Your task to perform on an android device: uninstall "Gboard" Image 0: 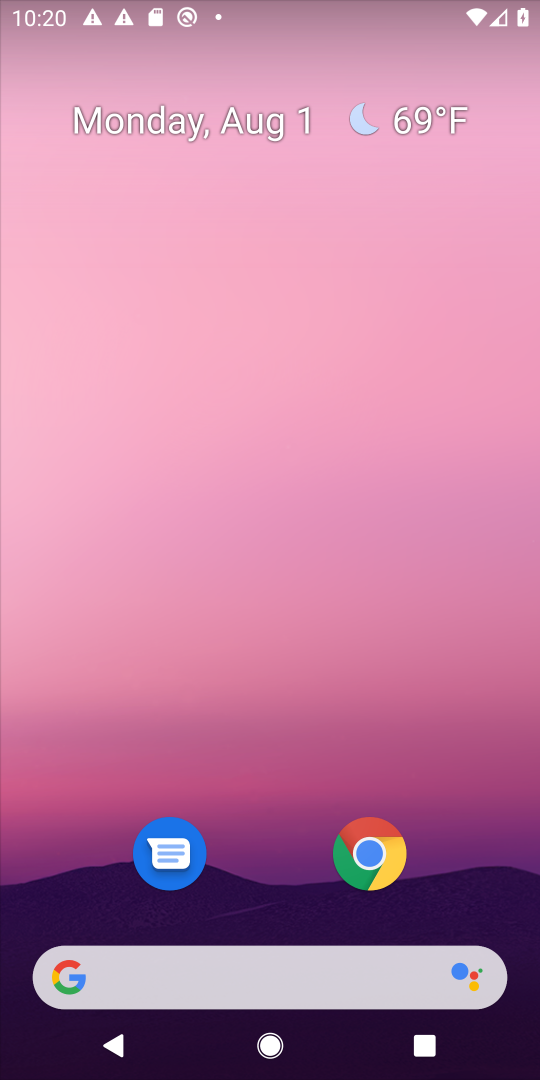
Step 0: drag from (252, 873) to (266, 192)
Your task to perform on an android device: uninstall "Gboard" Image 1: 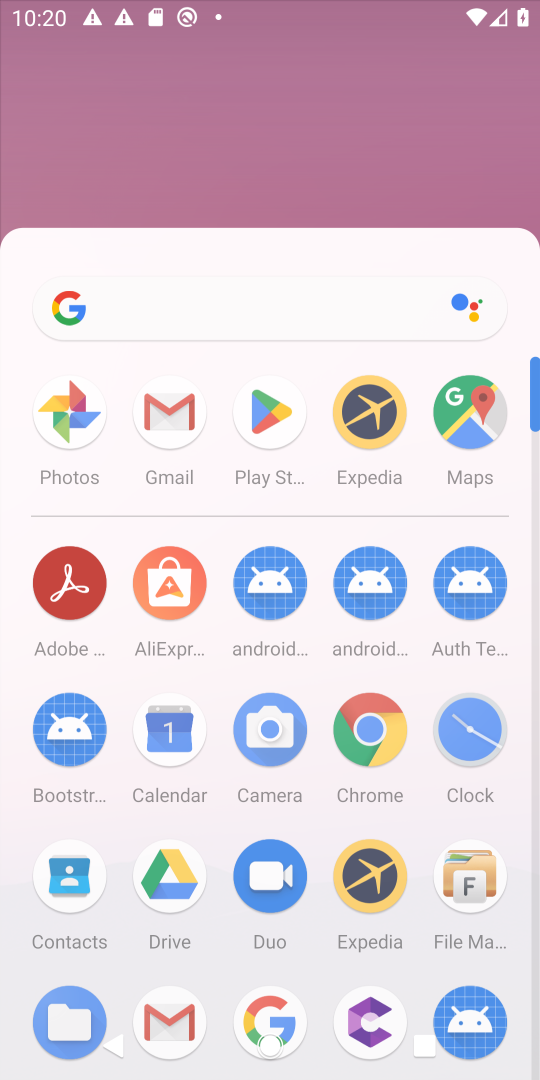
Step 1: drag from (312, 703) to (334, 48)
Your task to perform on an android device: uninstall "Gboard" Image 2: 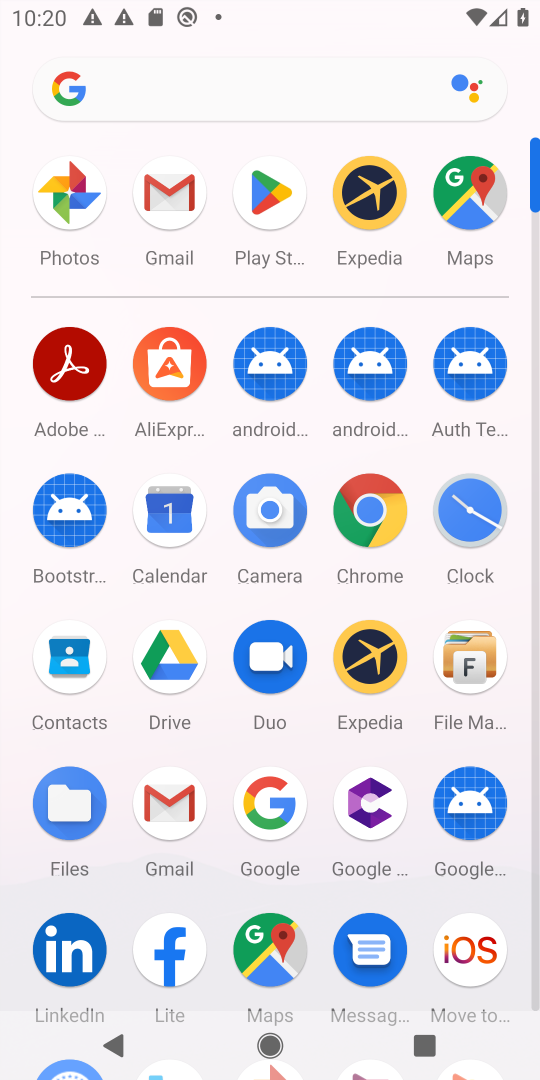
Step 2: click (234, 137)
Your task to perform on an android device: uninstall "Gboard" Image 3: 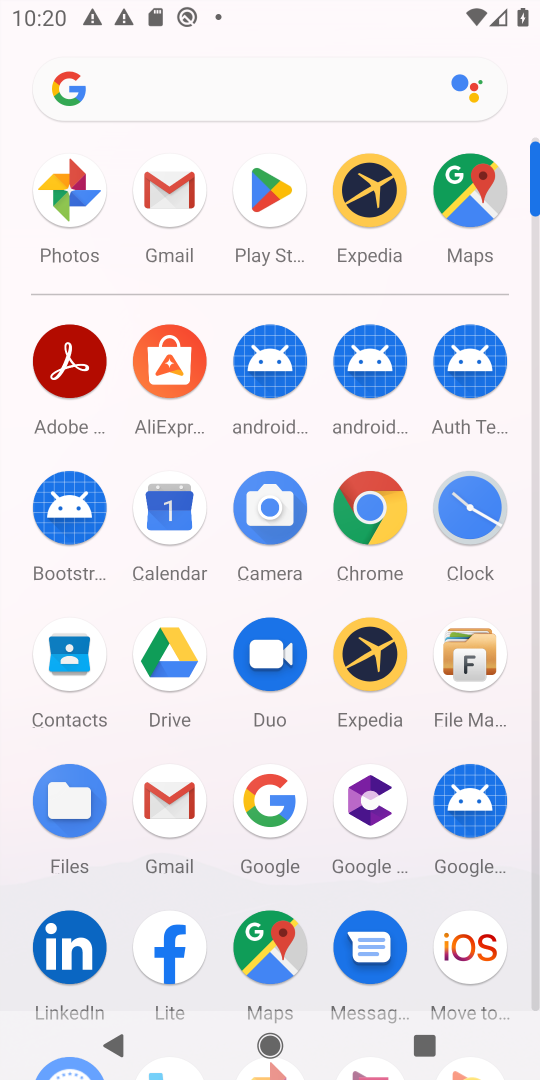
Step 3: drag from (209, 912) to (198, 344)
Your task to perform on an android device: uninstall "Gboard" Image 4: 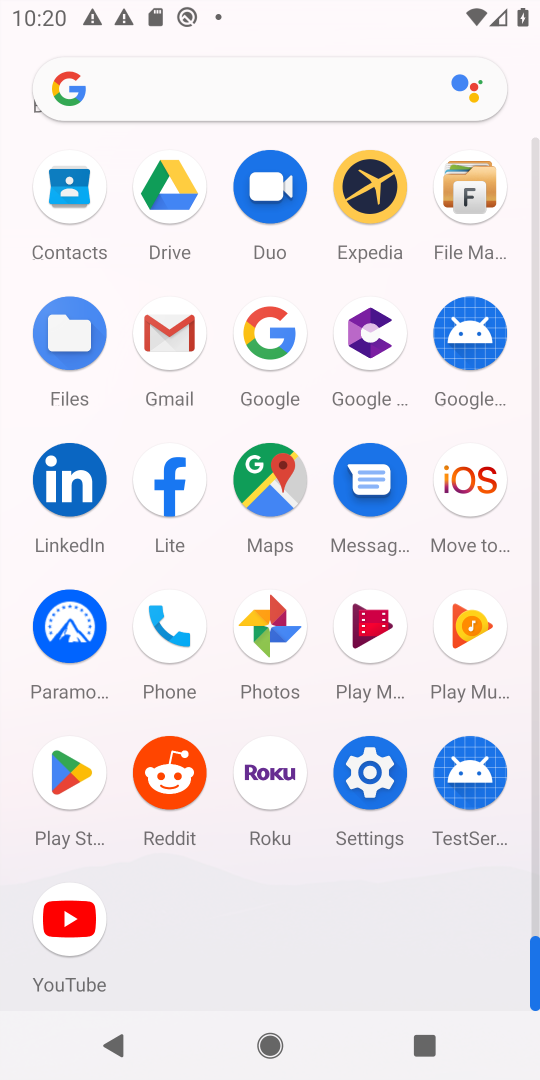
Step 4: drag from (221, 247) to (459, 1033)
Your task to perform on an android device: uninstall "Gboard" Image 5: 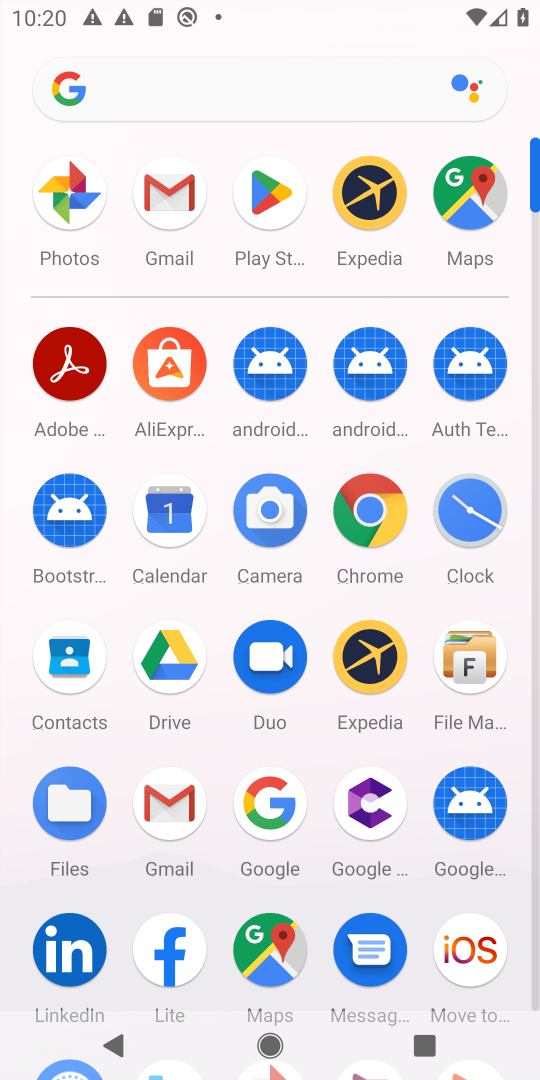
Step 5: click (247, 175)
Your task to perform on an android device: uninstall "Gboard" Image 6: 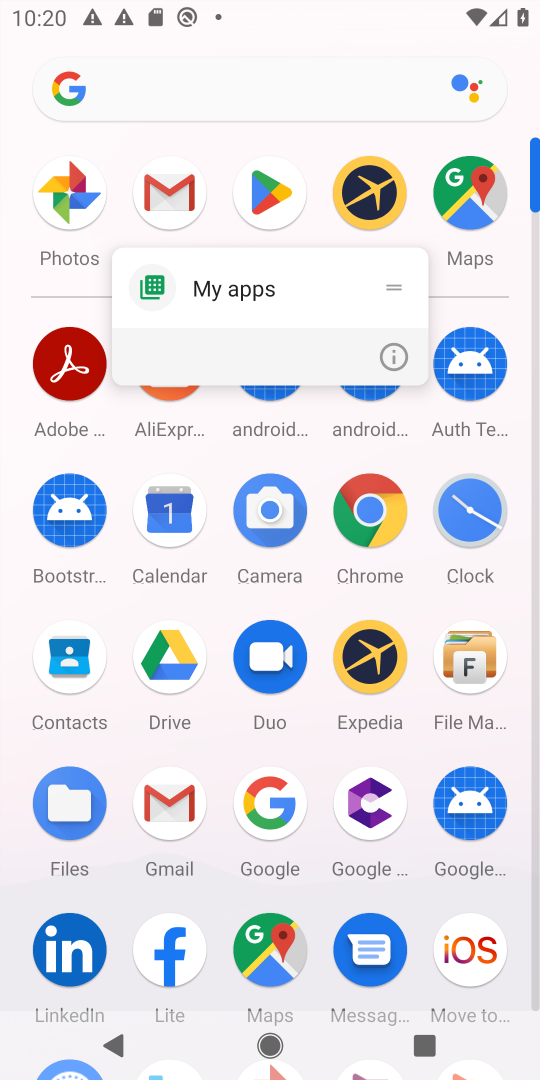
Step 6: click (401, 351)
Your task to perform on an android device: uninstall "Gboard" Image 7: 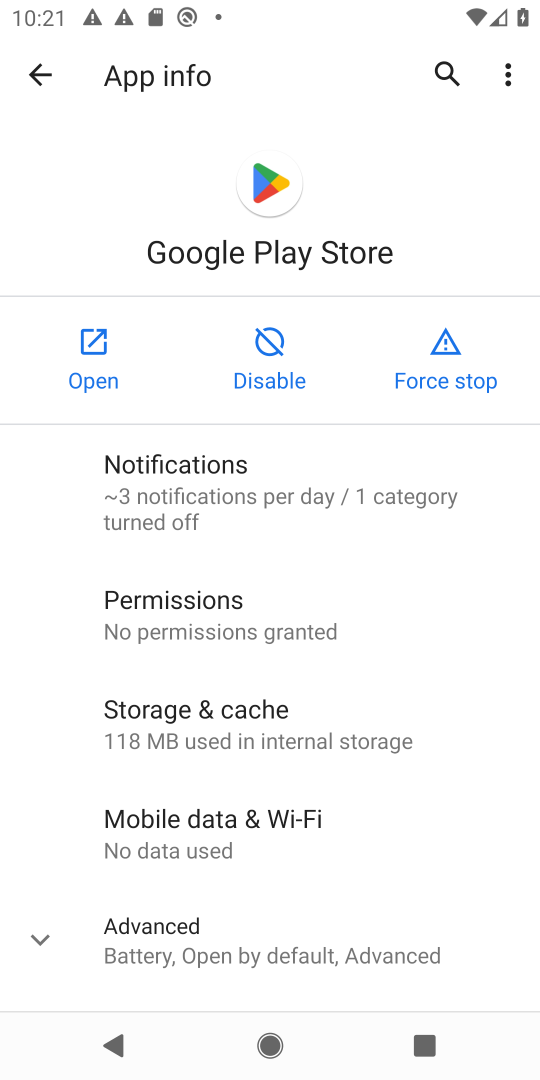
Step 7: click (89, 350)
Your task to perform on an android device: uninstall "Gboard" Image 8: 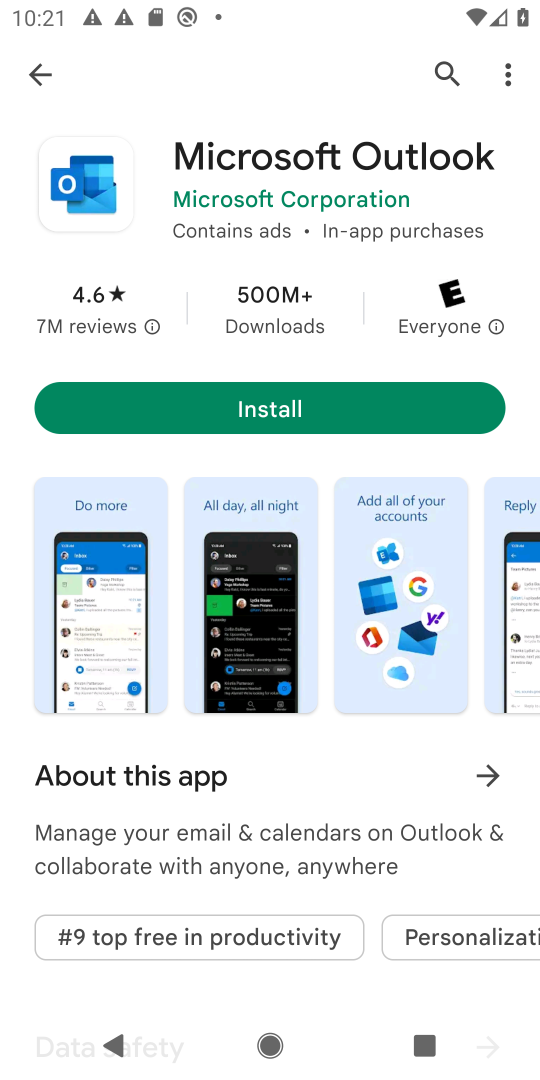
Step 8: click (443, 68)
Your task to perform on an android device: uninstall "Gboard" Image 9: 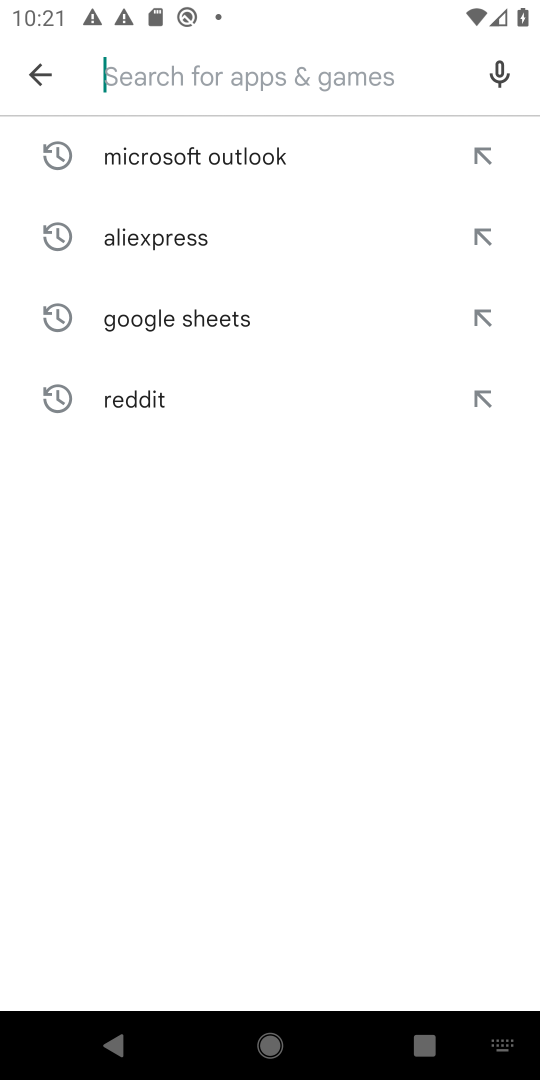
Step 9: type "Gboard"
Your task to perform on an android device: uninstall "Gboard" Image 10: 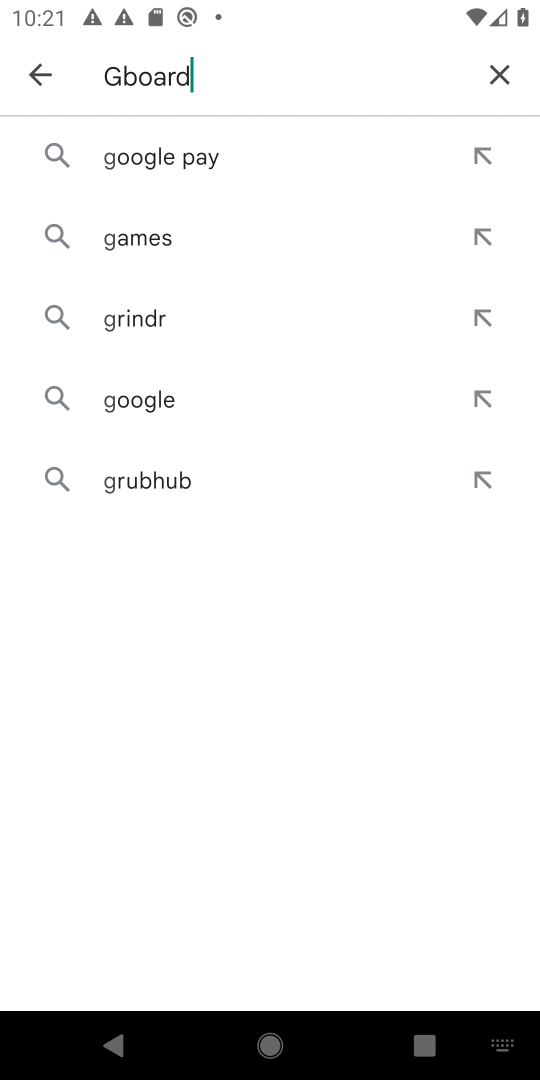
Step 10: type ""
Your task to perform on an android device: uninstall "Gboard" Image 11: 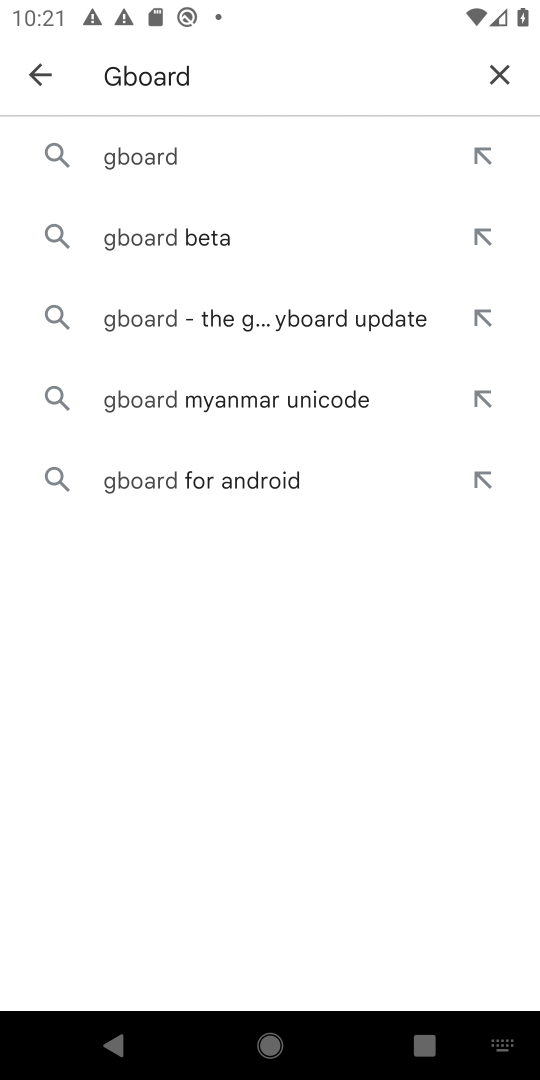
Step 11: click (223, 178)
Your task to perform on an android device: uninstall "Gboard" Image 12: 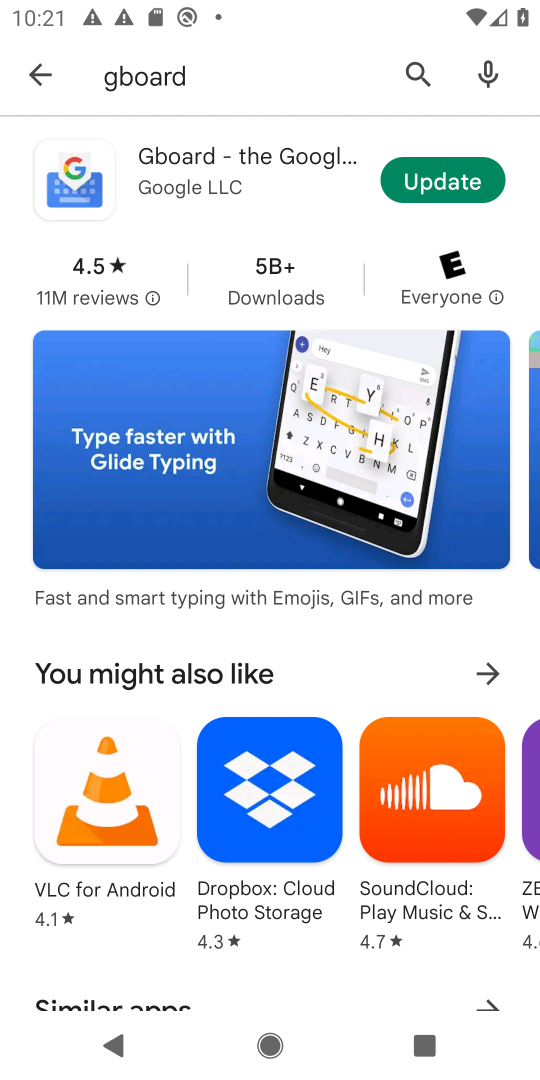
Step 12: click (174, 166)
Your task to perform on an android device: uninstall "Gboard" Image 13: 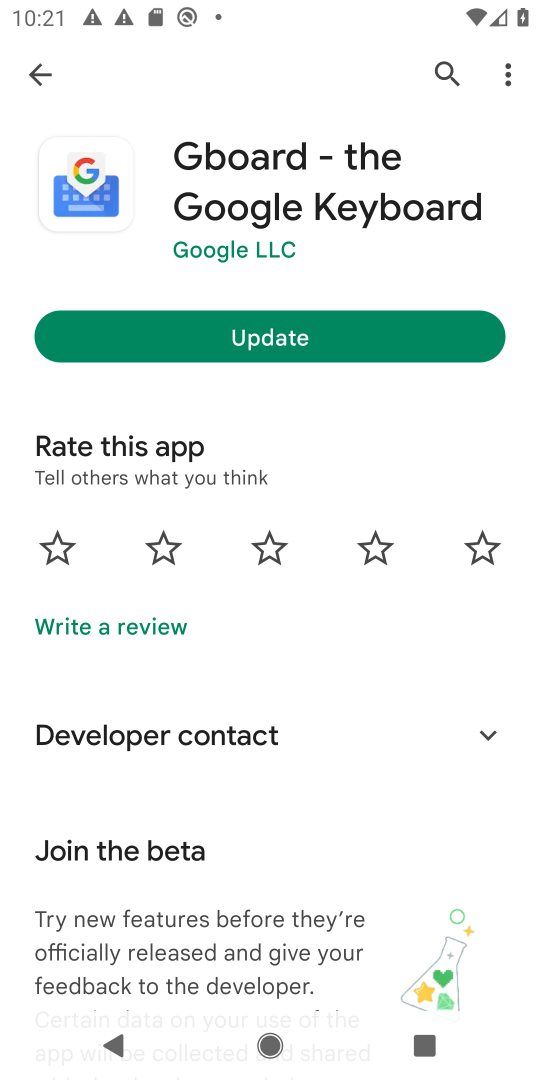
Step 13: click (225, 348)
Your task to perform on an android device: uninstall "Gboard" Image 14: 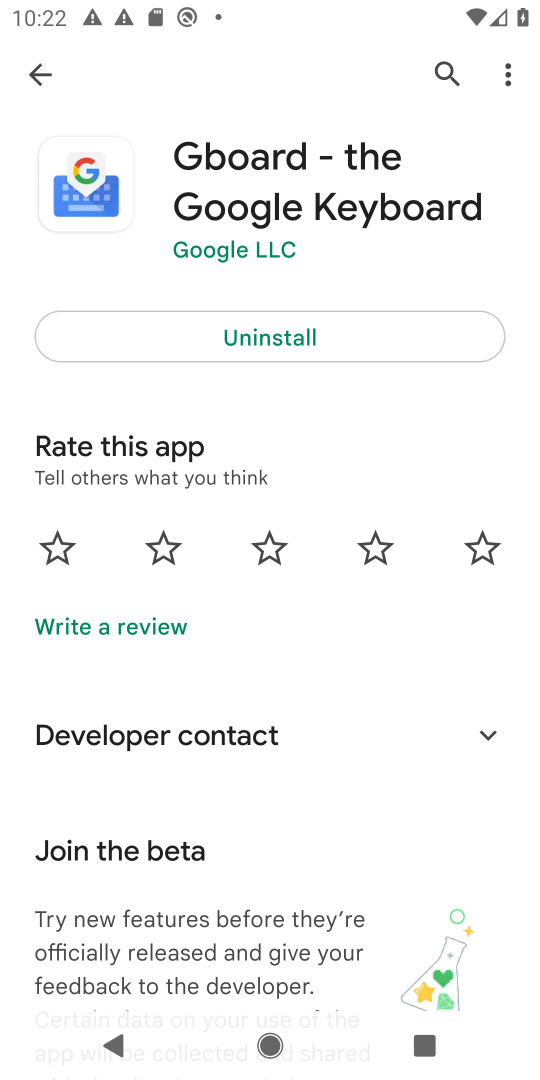
Step 14: click (220, 337)
Your task to perform on an android device: uninstall "Gboard" Image 15: 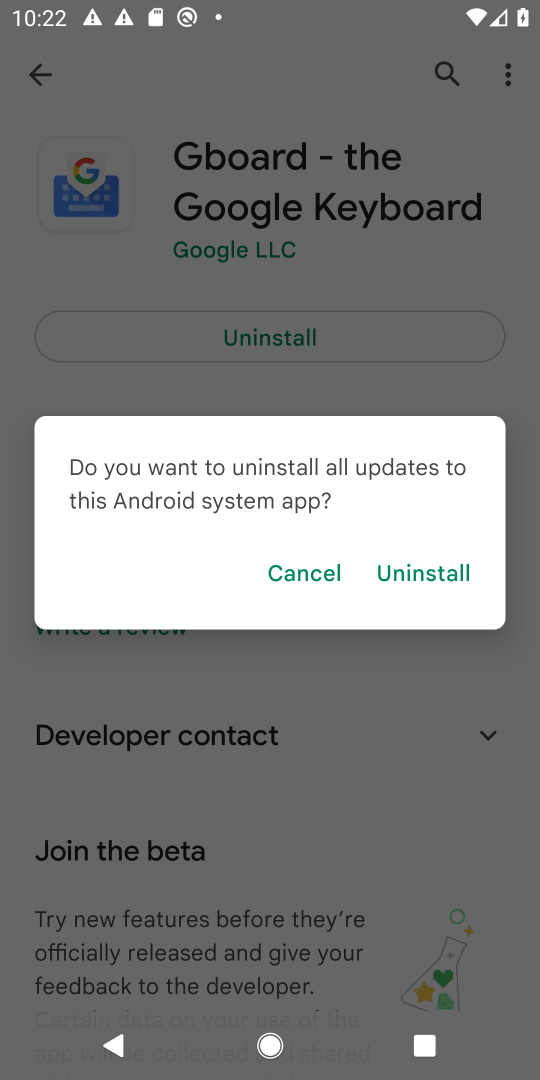
Step 15: click (435, 577)
Your task to perform on an android device: uninstall "Gboard" Image 16: 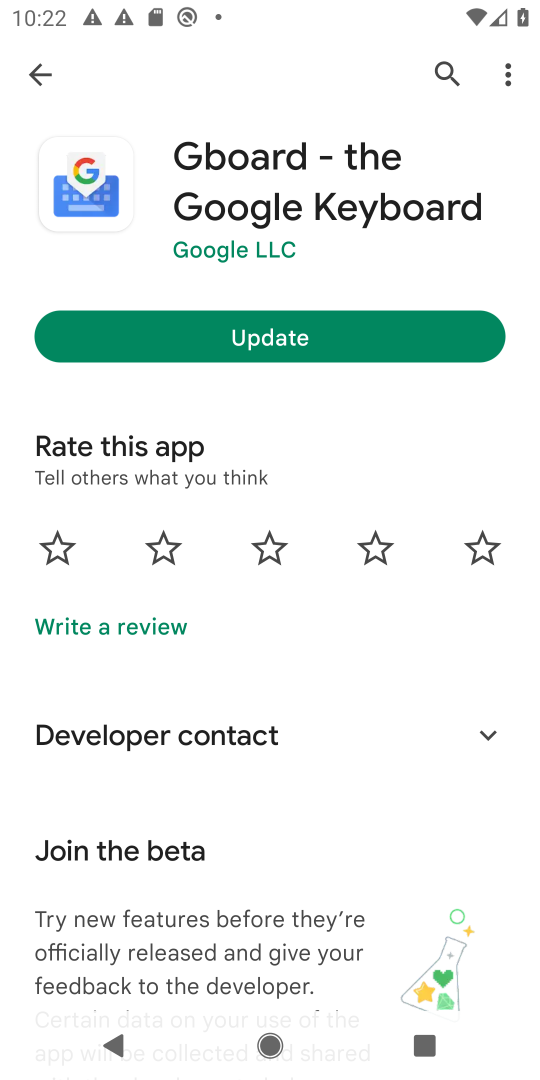
Step 16: task complete